Your task to perform on an android device: Open Chrome and go to the settings page Image 0: 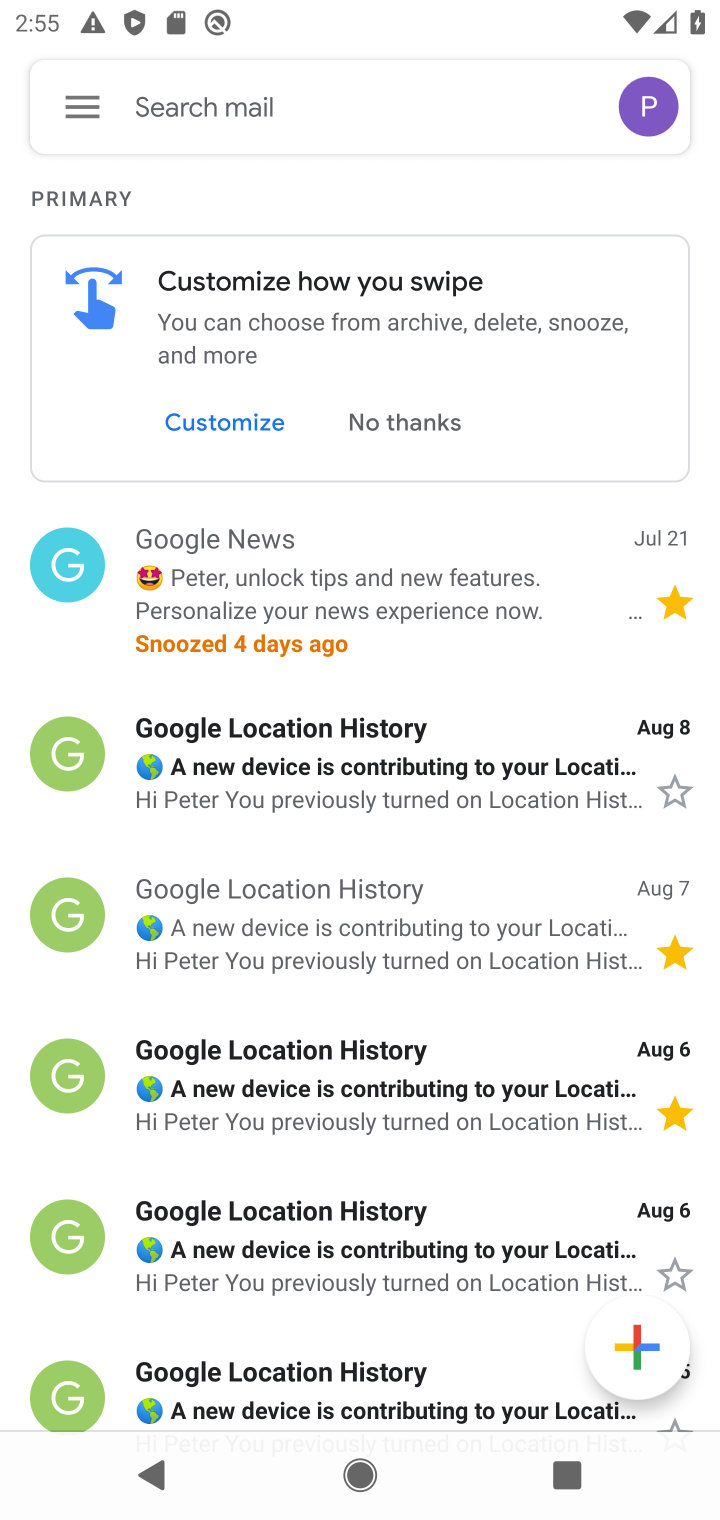
Step 0: press home button
Your task to perform on an android device: Open Chrome and go to the settings page Image 1: 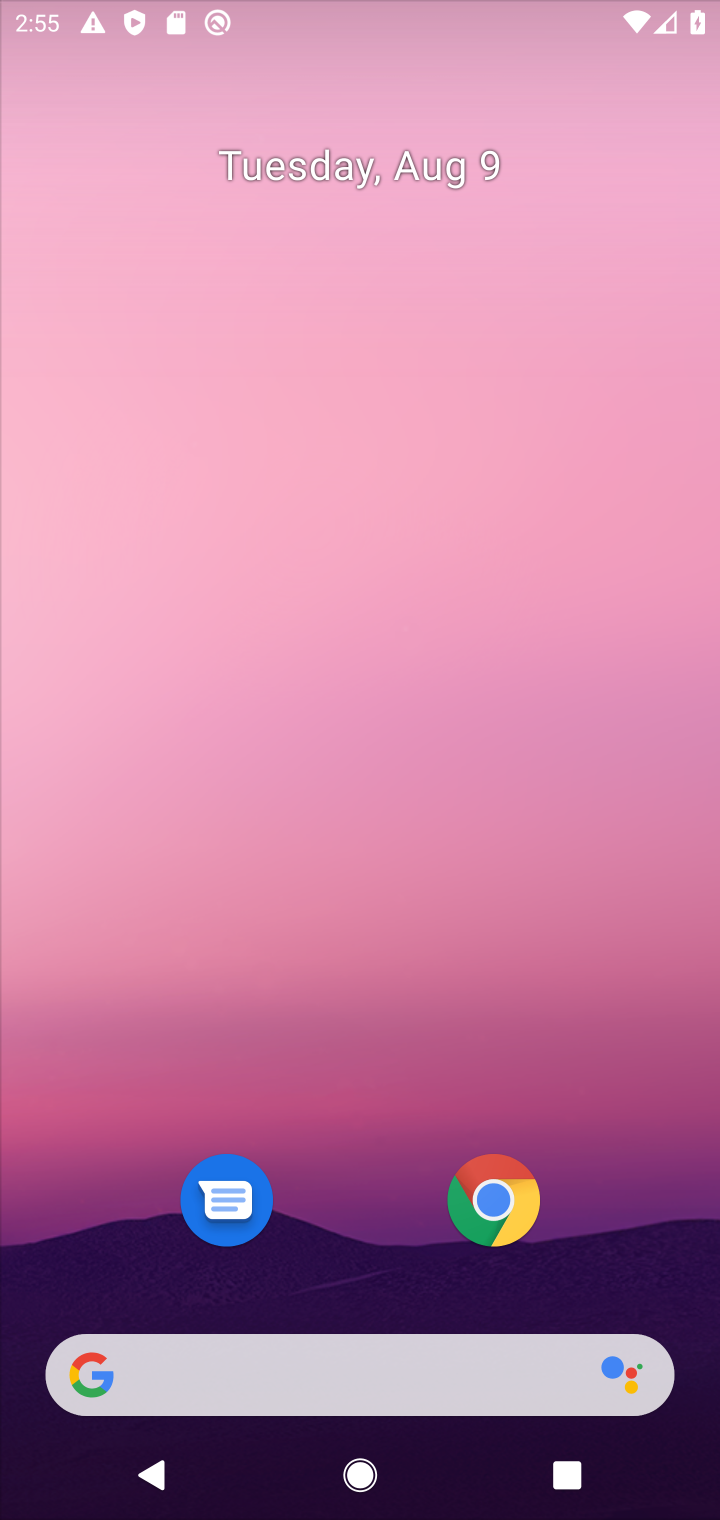
Step 1: drag from (280, 1284) to (298, 301)
Your task to perform on an android device: Open Chrome and go to the settings page Image 2: 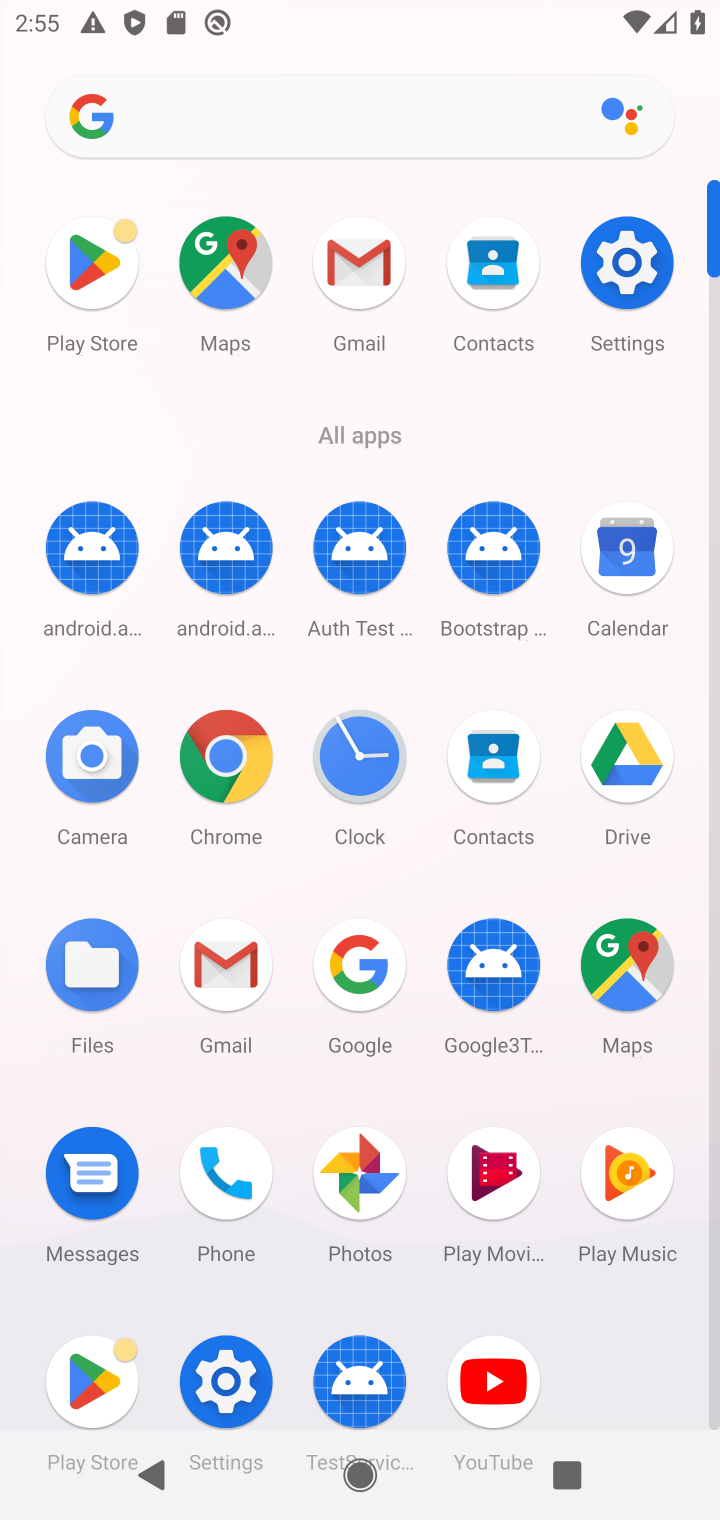
Step 2: click (176, 766)
Your task to perform on an android device: Open Chrome and go to the settings page Image 3: 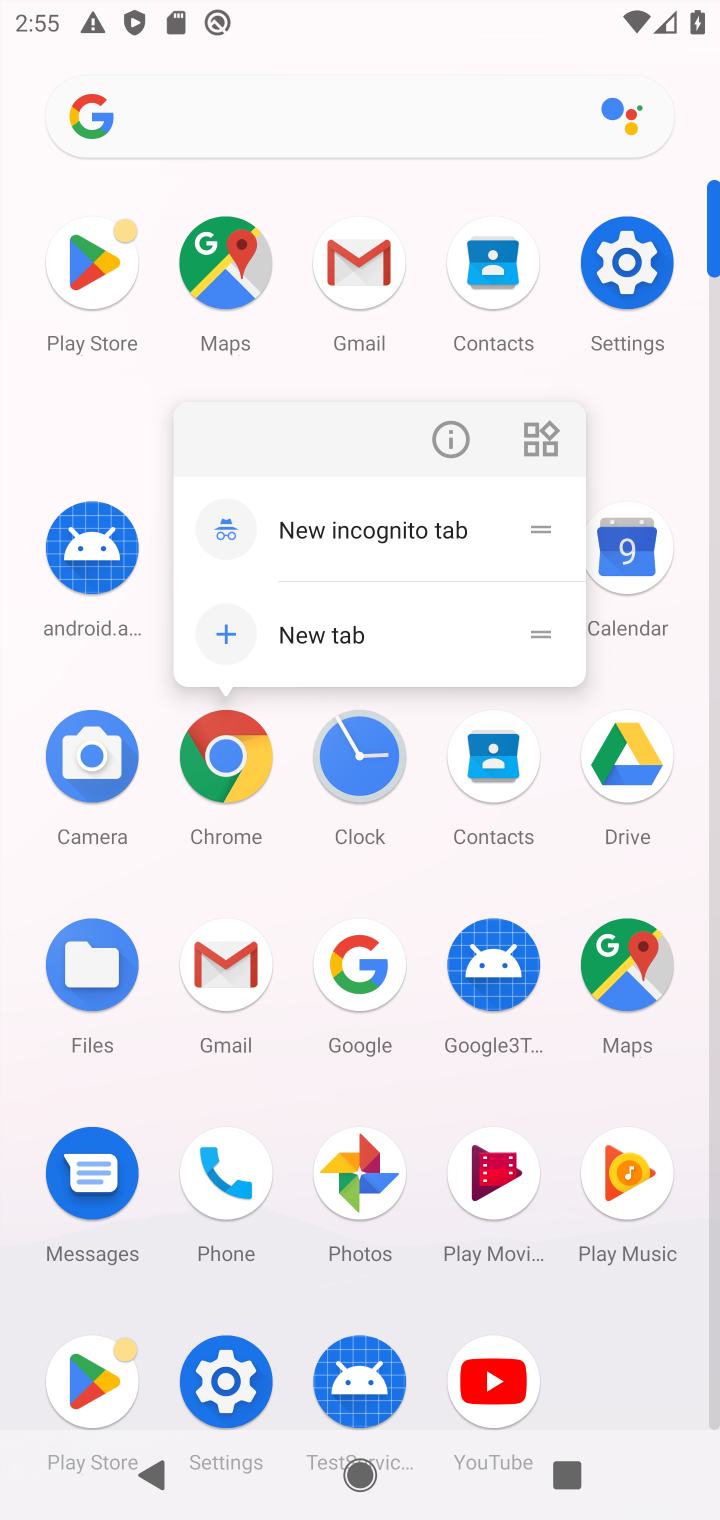
Step 3: click (222, 771)
Your task to perform on an android device: Open Chrome and go to the settings page Image 4: 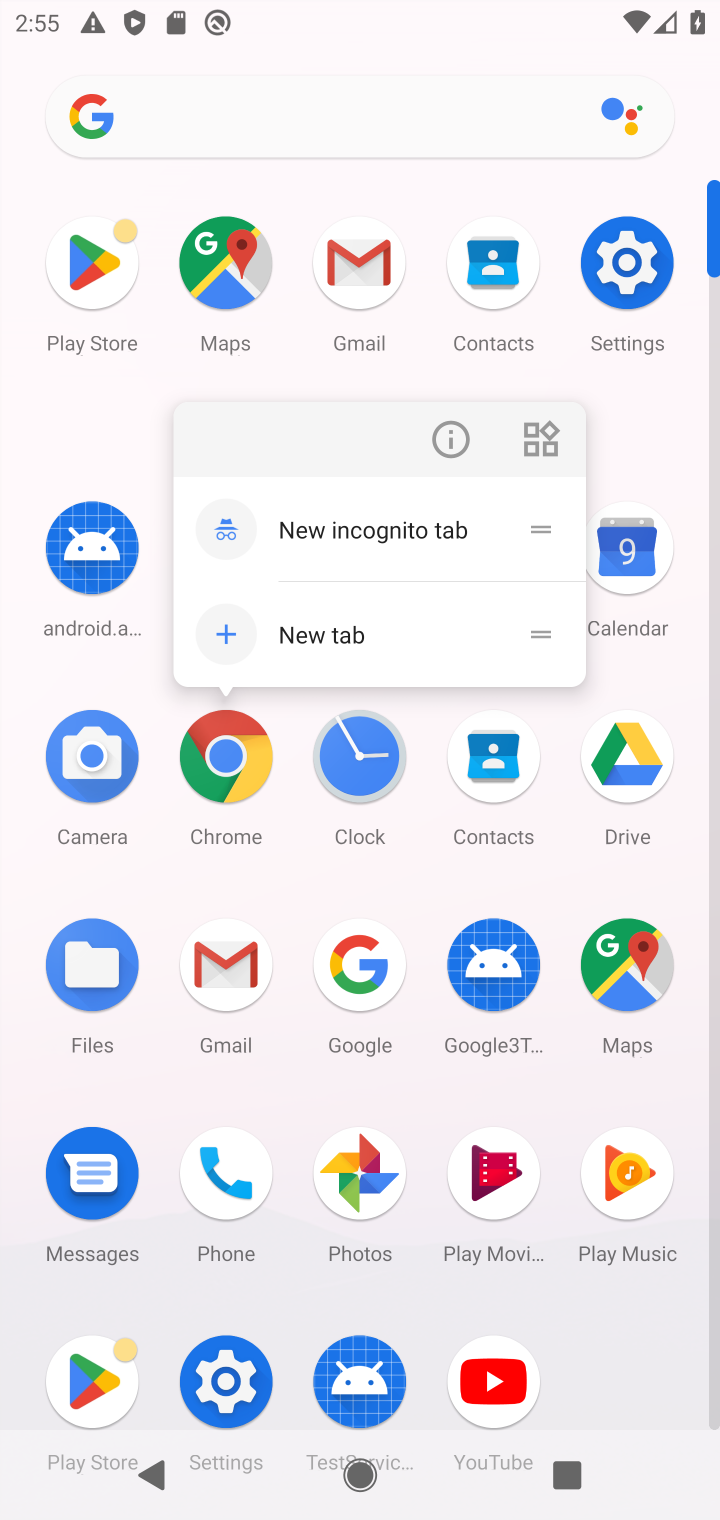
Step 4: click (266, 745)
Your task to perform on an android device: Open Chrome and go to the settings page Image 5: 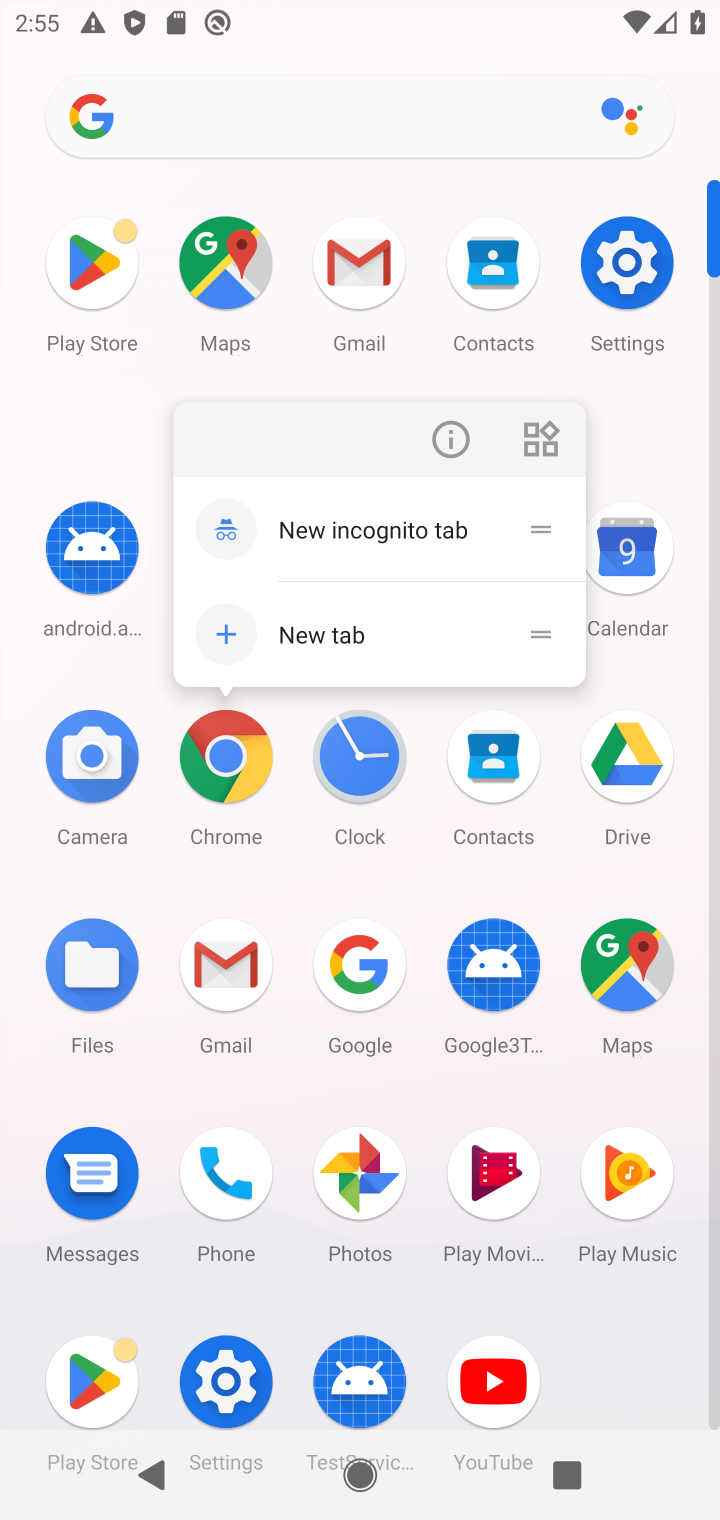
Step 5: click (267, 769)
Your task to perform on an android device: Open Chrome and go to the settings page Image 6: 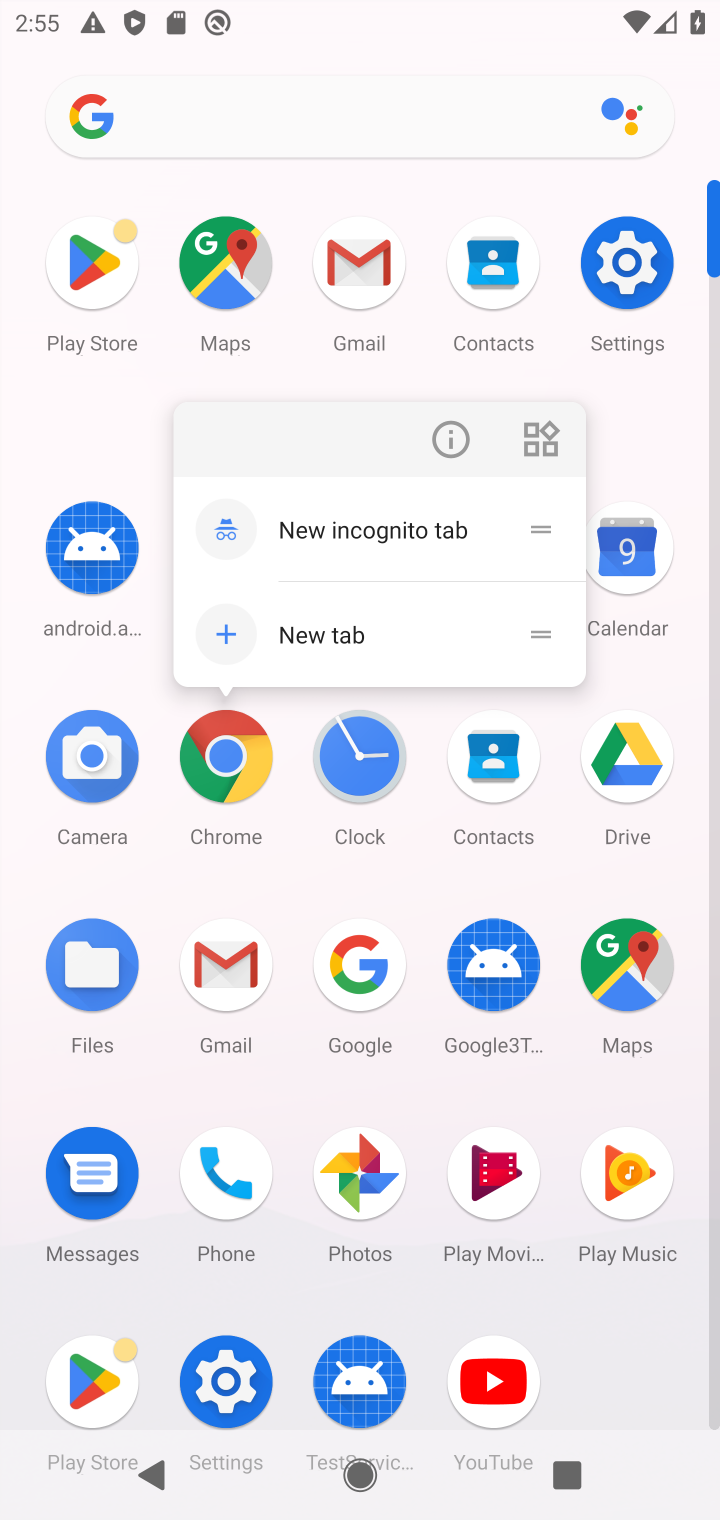
Step 6: click (220, 782)
Your task to perform on an android device: Open Chrome and go to the settings page Image 7: 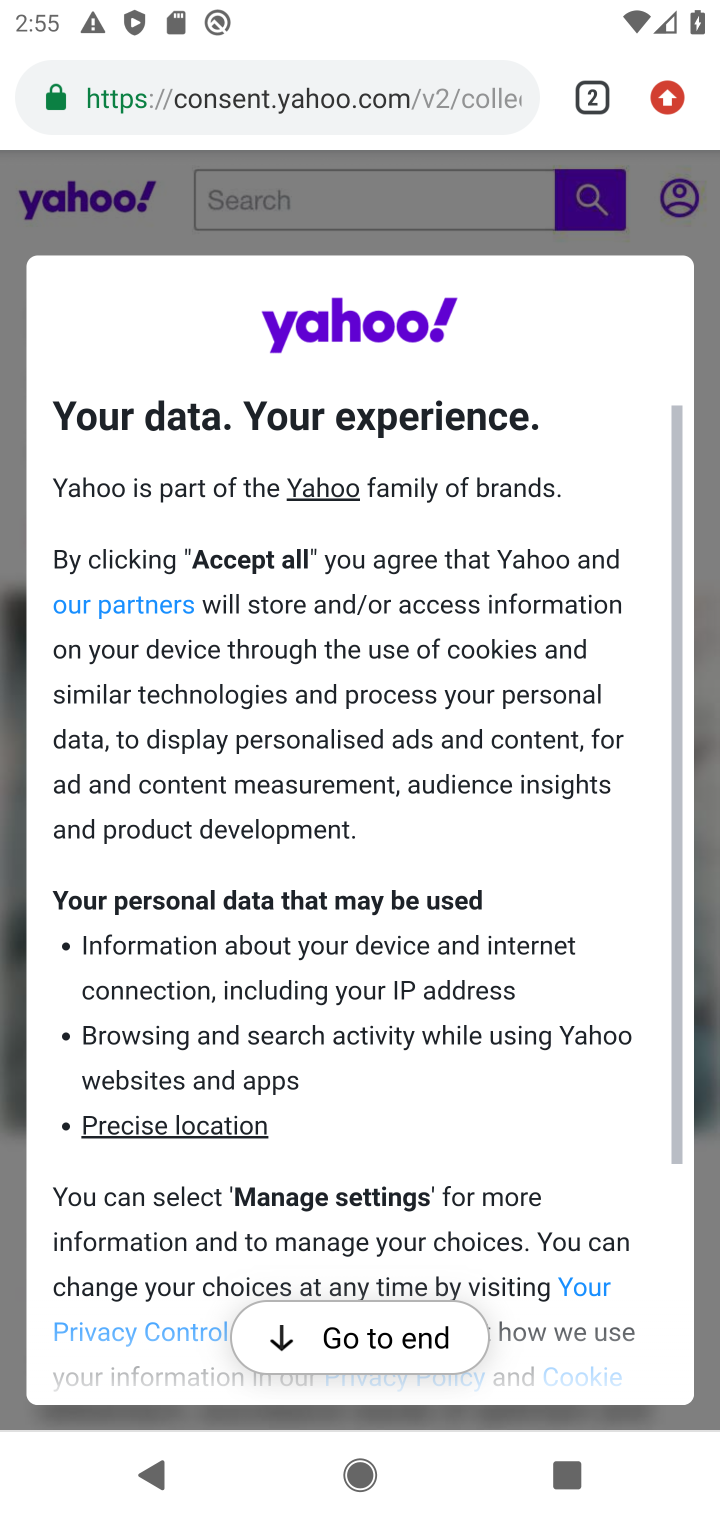
Step 7: task complete